Your task to perform on an android device: check google app version Image 0: 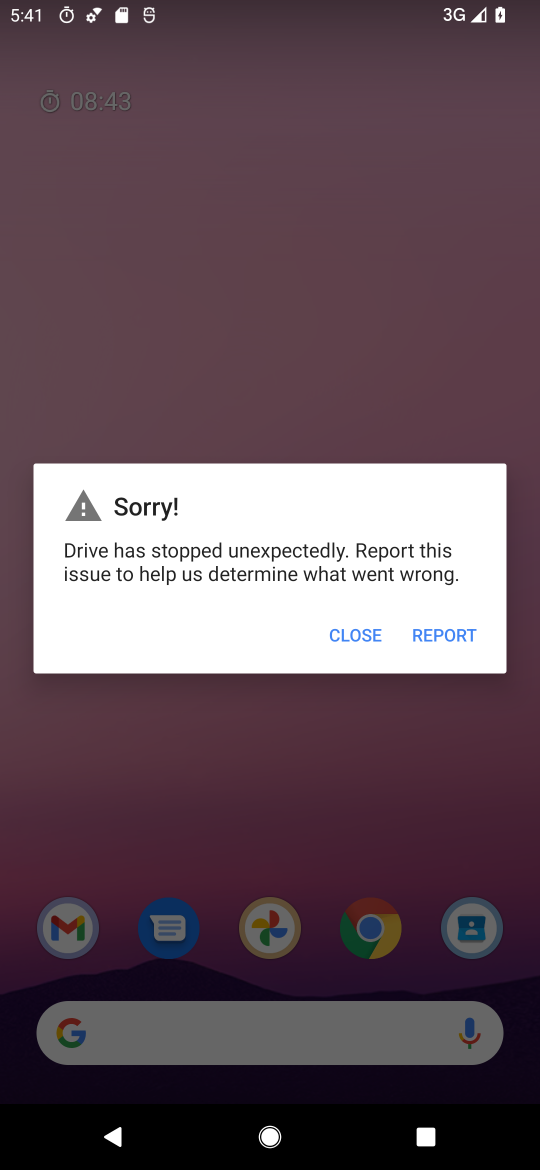
Step 0: click (361, 639)
Your task to perform on an android device: check google app version Image 1: 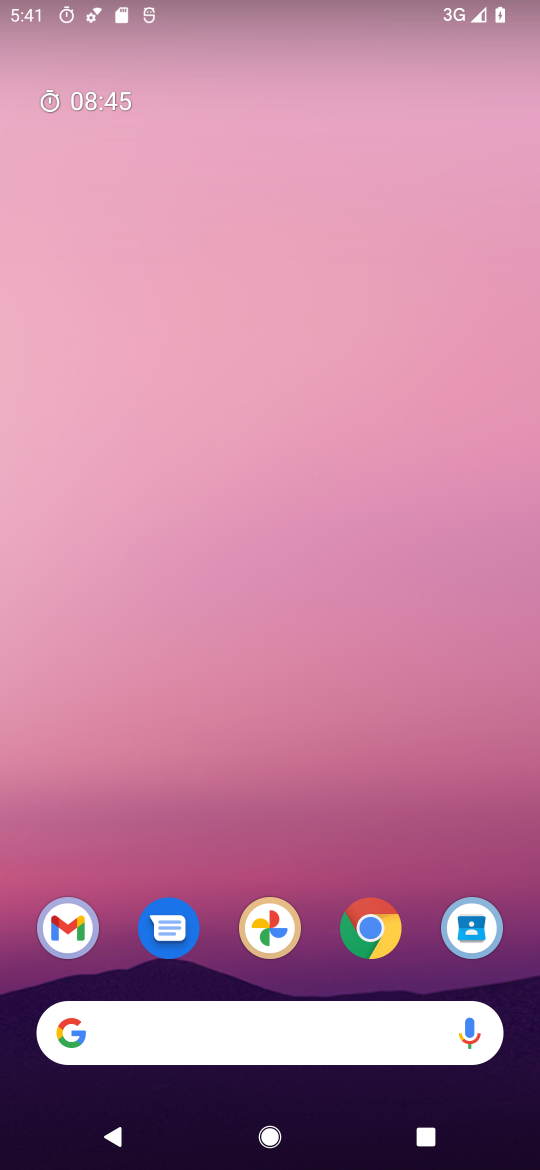
Step 1: click (70, 1033)
Your task to perform on an android device: check google app version Image 2: 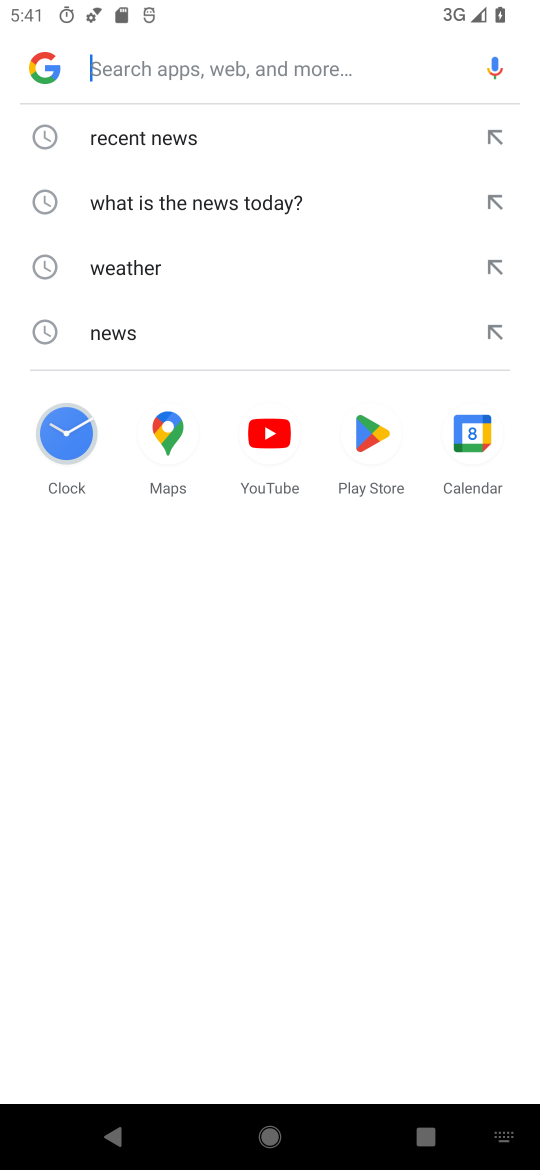
Step 2: click (47, 67)
Your task to perform on an android device: check google app version Image 3: 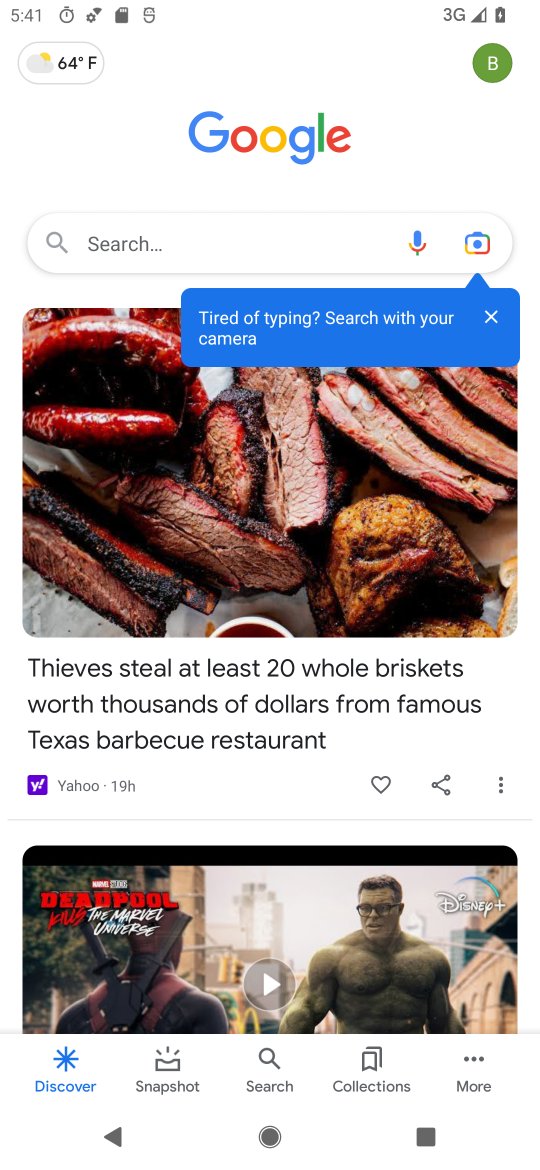
Step 3: click (496, 52)
Your task to perform on an android device: check google app version Image 4: 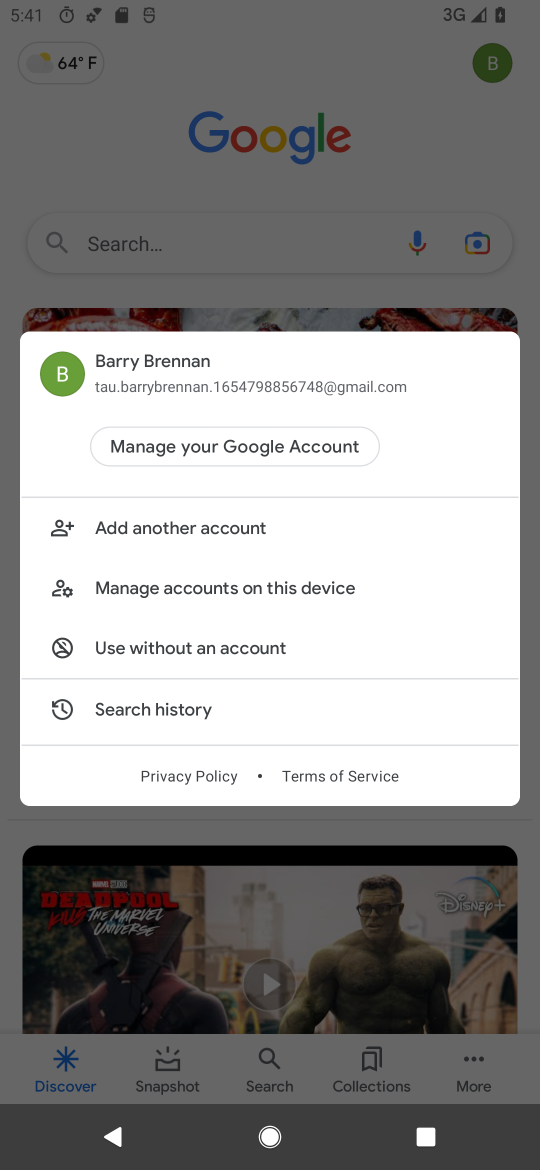
Step 4: click (476, 1058)
Your task to perform on an android device: check google app version Image 5: 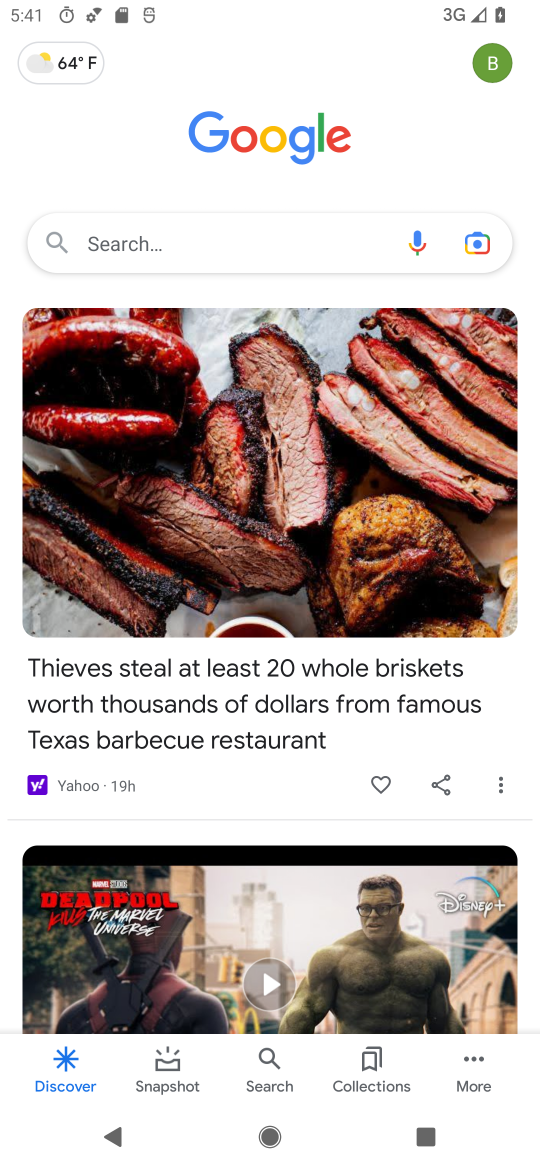
Step 5: click (474, 1061)
Your task to perform on an android device: check google app version Image 6: 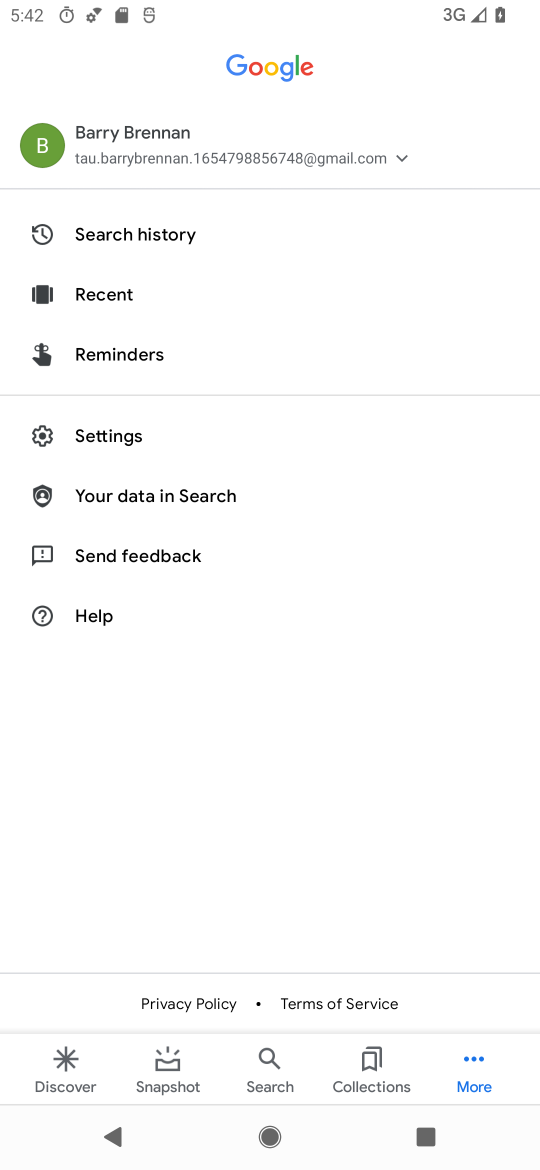
Step 6: click (107, 433)
Your task to perform on an android device: check google app version Image 7: 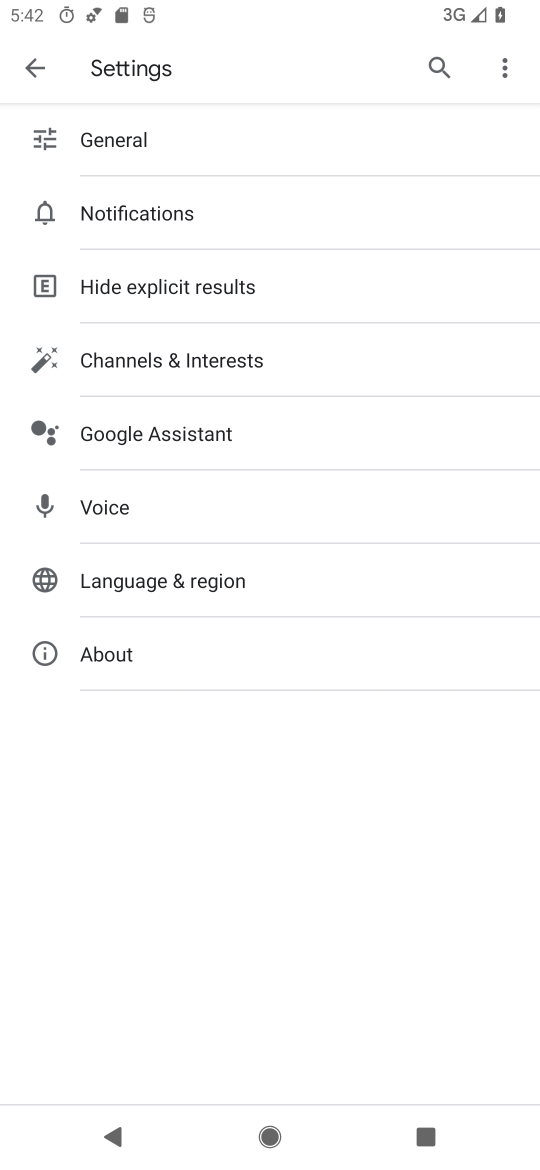
Step 7: click (151, 649)
Your task to perform on an android device: check google app version Image 8: 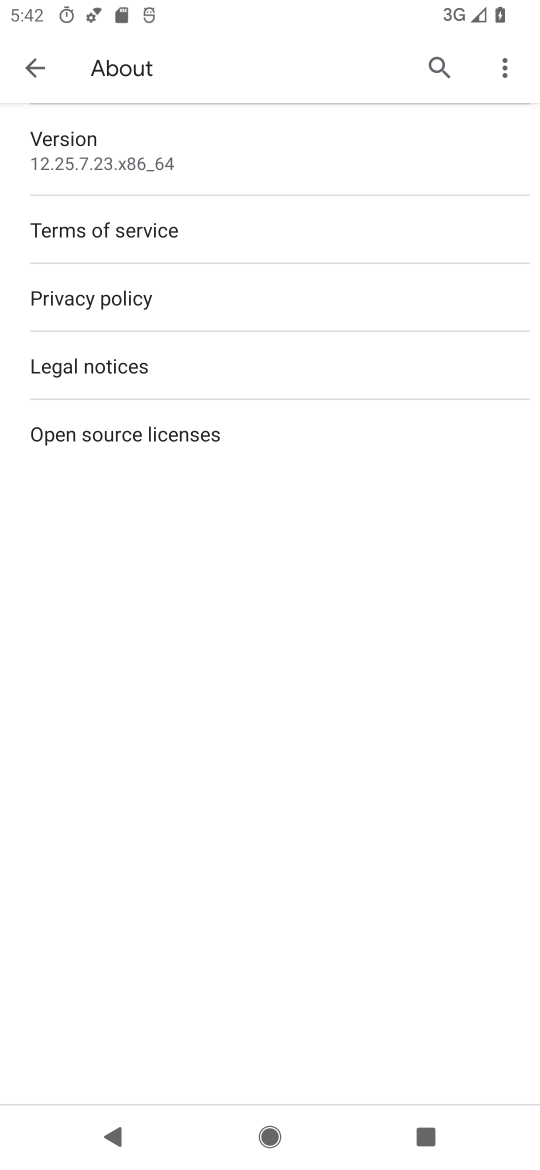
Step 8: task complete